Your task to perform on an android device: turn off improve location accuracy Image 0: 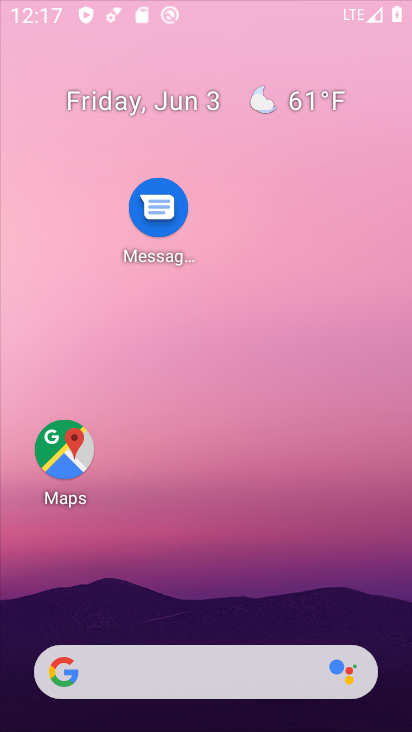
Step 0: drag from (211, 582) to (153, 64)
Your task to perform on an android device: turn off improve location accuracy Image 1: 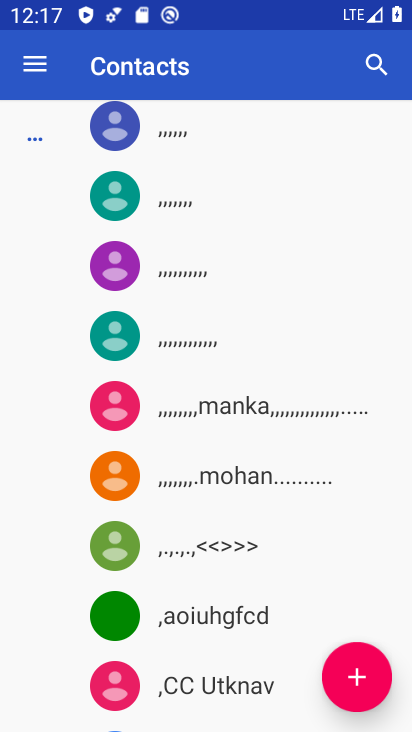
Step 1: press home button
Your task to perform on an android device: turn off improve location accuracy Image 2: 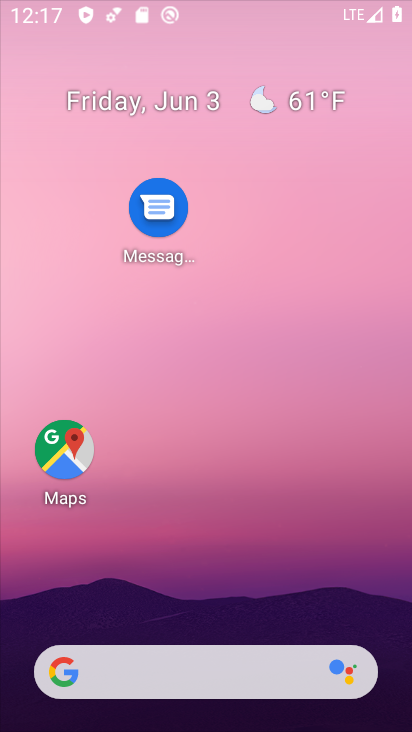
Step 2: drag from (190, 621) to (178, 16)
Your task to perform on an android device: turn off improve location accuracy Image 3: 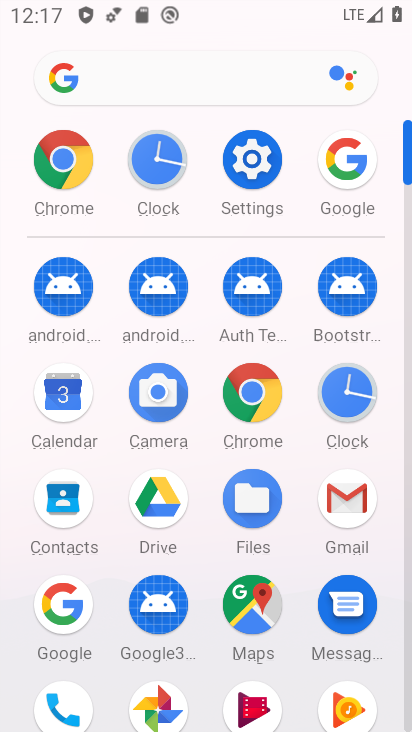
Step 3: click (253, 182)
Your task to perform on an android device: turn off improve location accuracy Image 4: 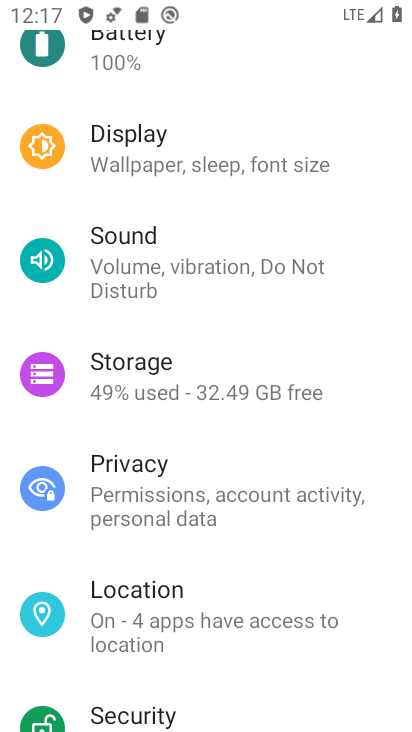
Step 4: click (234, 614)
Your task to perform on an android device: turn off improve location accuracy Image 5: 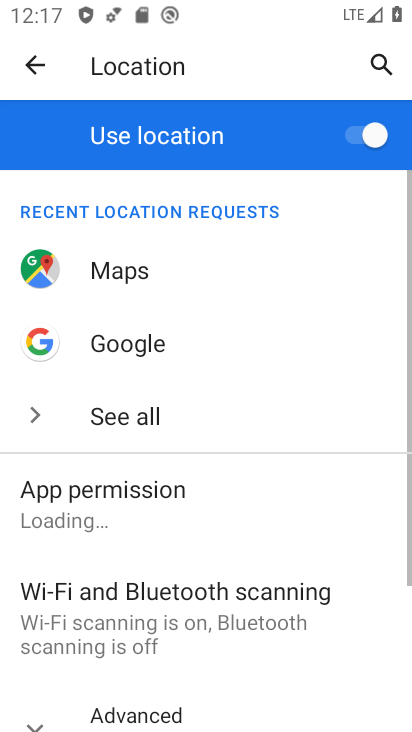
Step 5: drag from (234, 614) to (187, 120)
Your task to perform on an android device: turn off improve location accuracy Image 6: 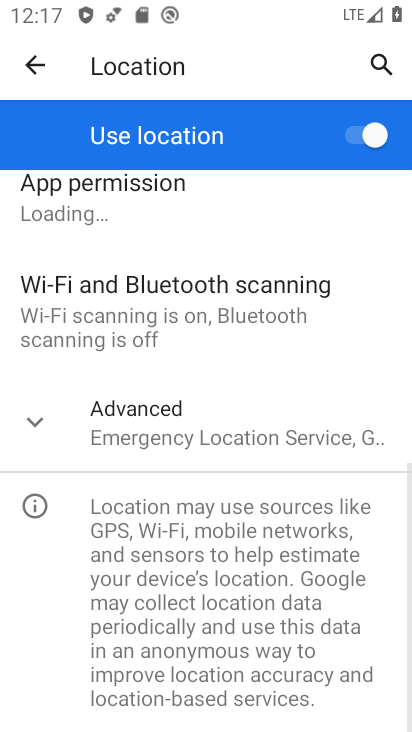
Step 6: click (184, 403)
Your task to perform on an android device: turn off improve location accuracy Image 7: 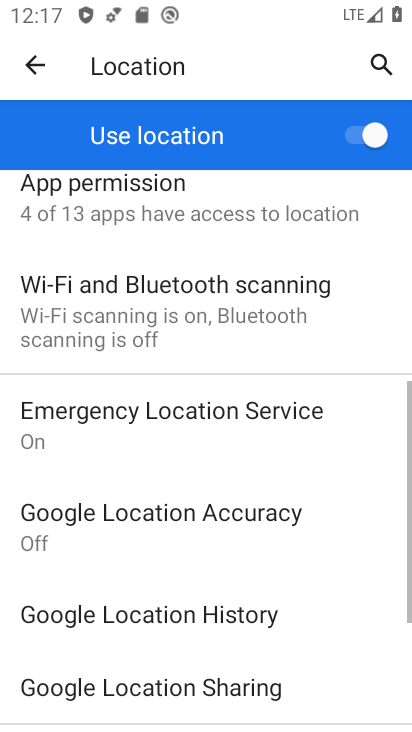
Step 7: click (214, 540)
Your task to perform on an android device: turn off improve location accuracy Image 8: 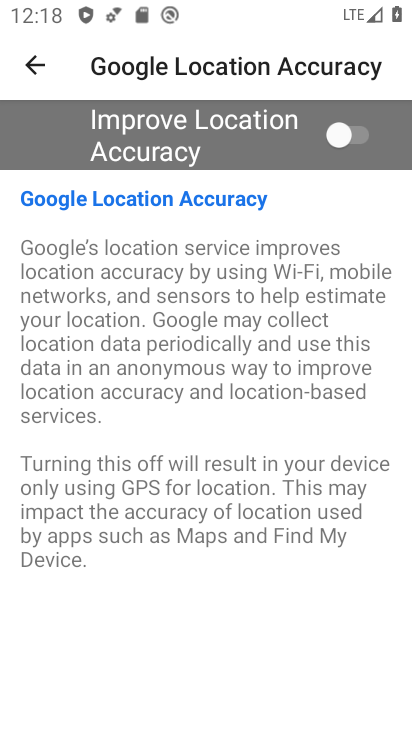
Step 8: task complete